Your task to perform on an android device: Open network settings Image 0: 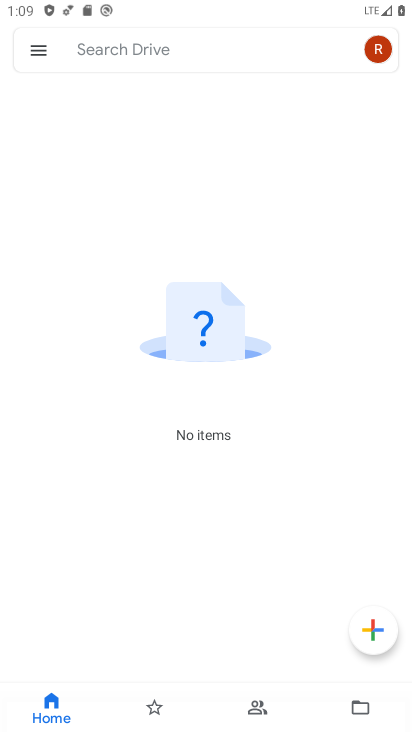
Step 0: press home button
Your task to perform on an android device: Open network settings Image 1: 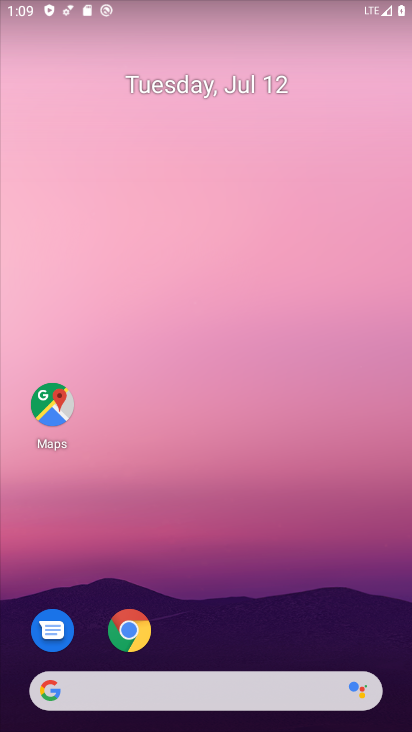
Step 1: drag from (348, 630) to (325, 288)
Your task to perform on an android device: Open network settings Image 2: 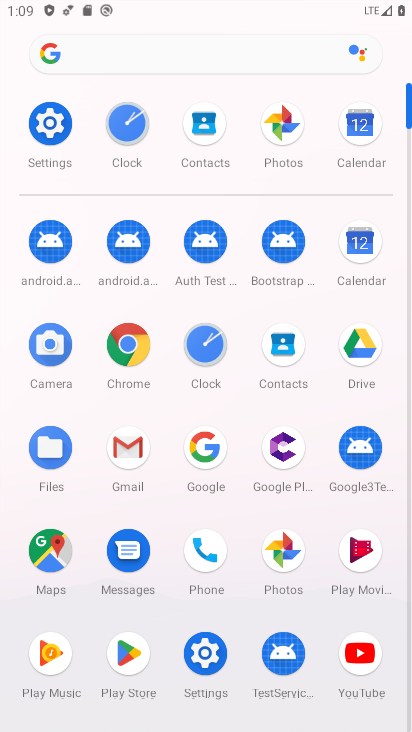
Step 2: click (205, 652)
Your task to perform on an android device: Open network settings Image 3: 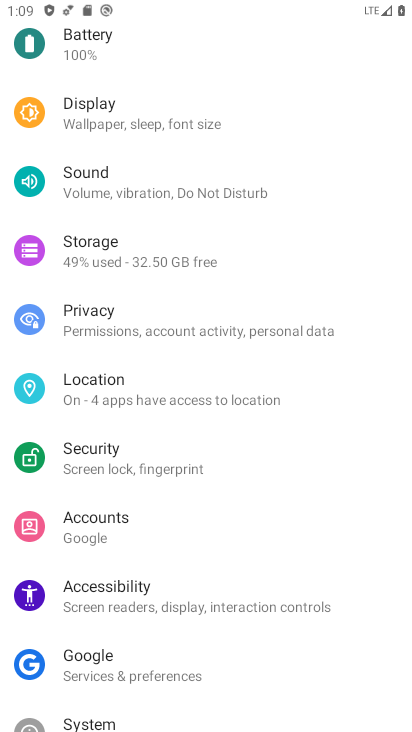
Step 3: drag from (299, 141) to (320, 412)
Your task to perform on an android device: Open network settings Image 4: 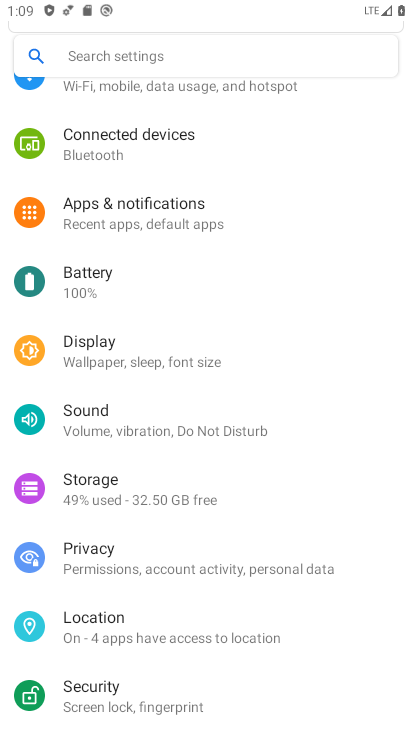
Step 4: drag from (295, 245) to (300, 566)
Your task to perform on an android device: Open network settings Image 5: 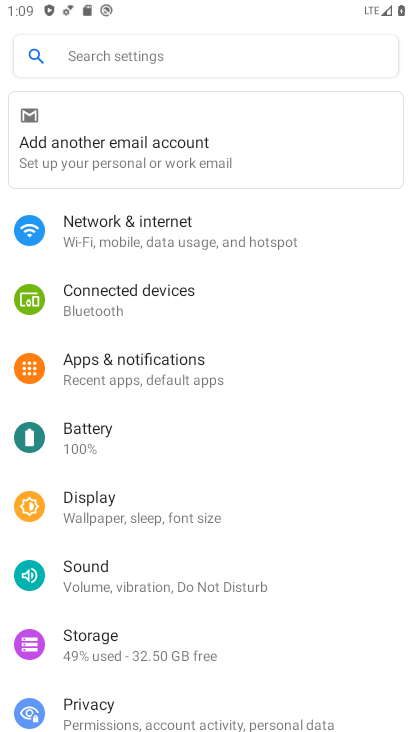
Step 5: click (109, 225)
Your task to perform on an android device: Open network settings Image 6: 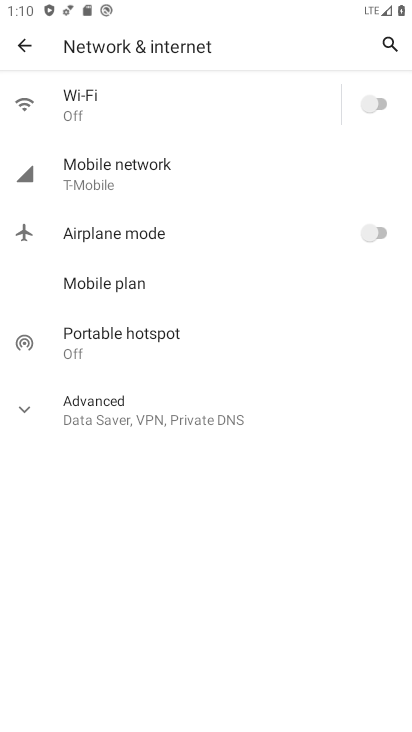
Step 6: click (103, 161)
Your task to perform on an android device: Open network settings Image 7: 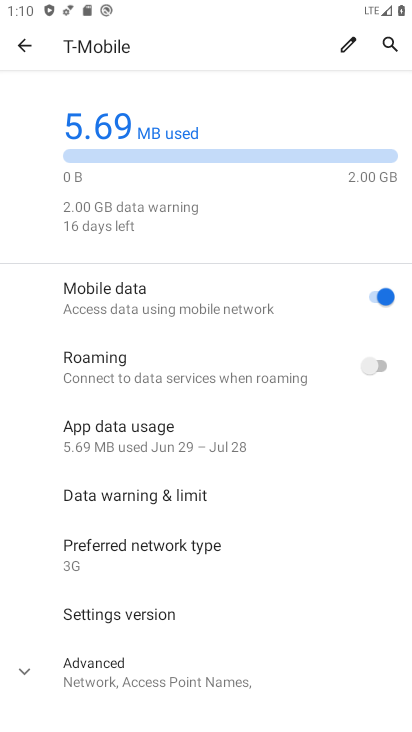
Step 7: drag from (283, 440) to (290, 616)
Your task to perform on an android device: Open network settings Image 8: 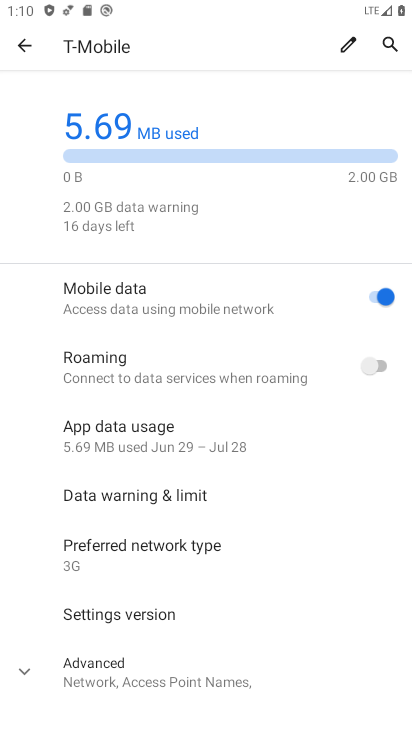
Step 8: click (23, 667)
Your task to perform on an android device: Open network settings Image 9: 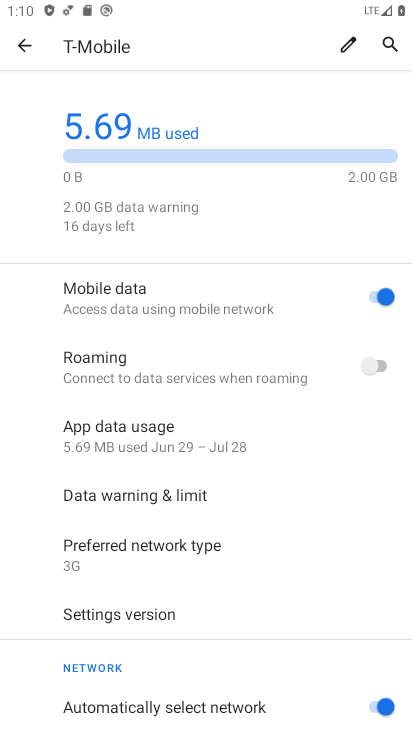
Step 9: task complete